Your task to perform on an android device: change notifications settings Image 0: 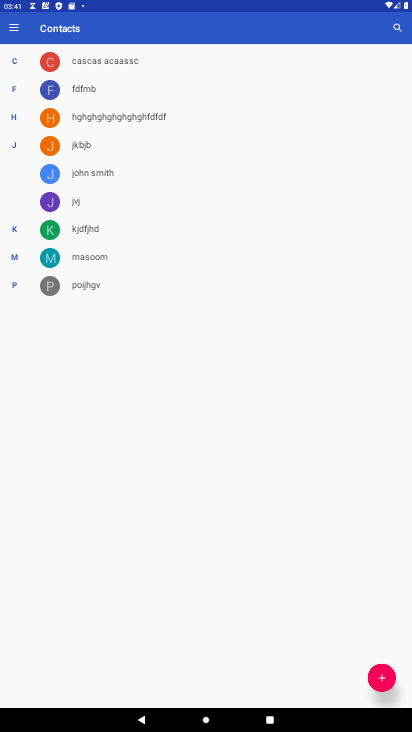
Step 0: press home button
Your task to perform on an android device: change notifications settings Image 1: 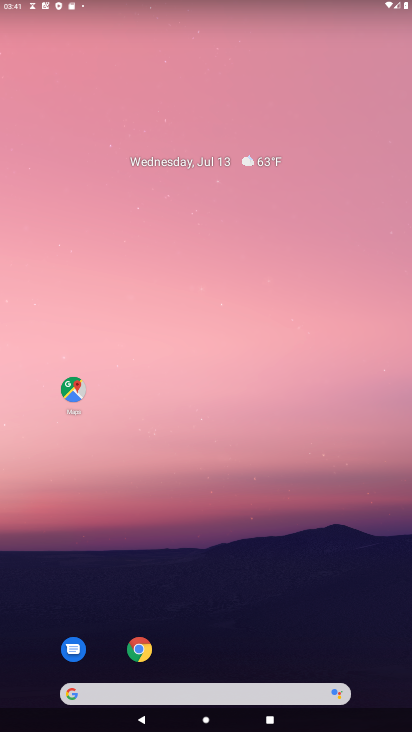
Step 1: drag from (304, 557) to (294, 9)
Your task to perform on an android device: change notifications settings Image 2: 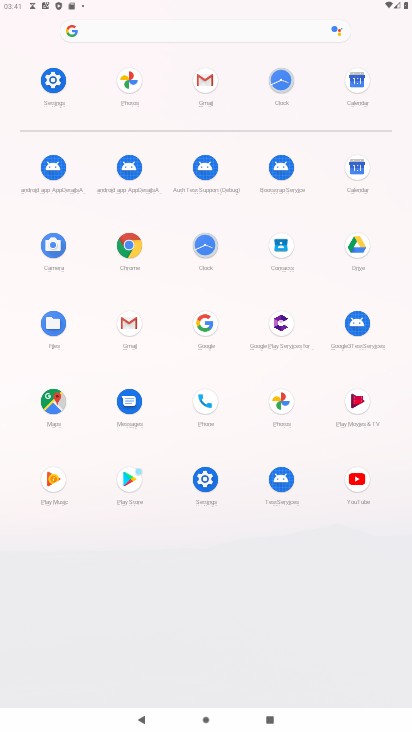
Step 2: click (44, 86)
Your task to perform on an android device: change notifications settings Image 3: 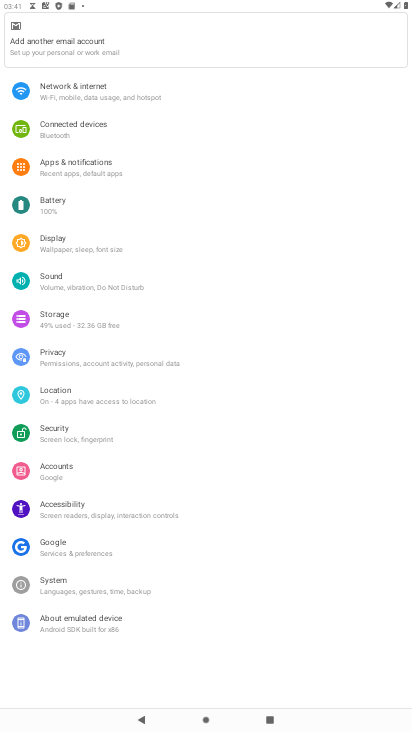
Step 3: click (68, 161)
Your task to perform on an android device: change notifications settings Image 4: 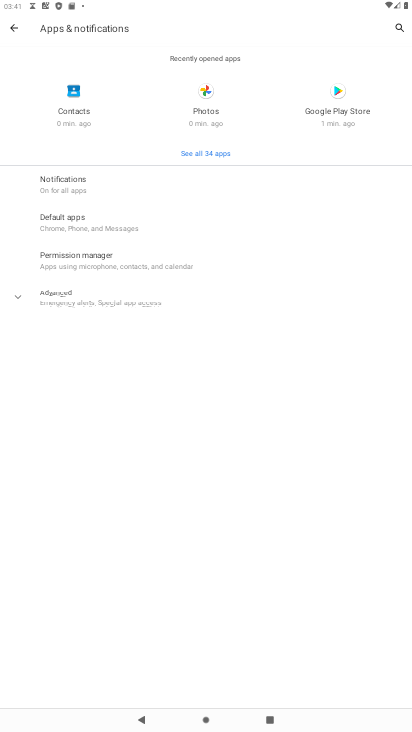
Step 4: click (62, 190)
Your task to perform on an android device: change notifications settings Image 5: 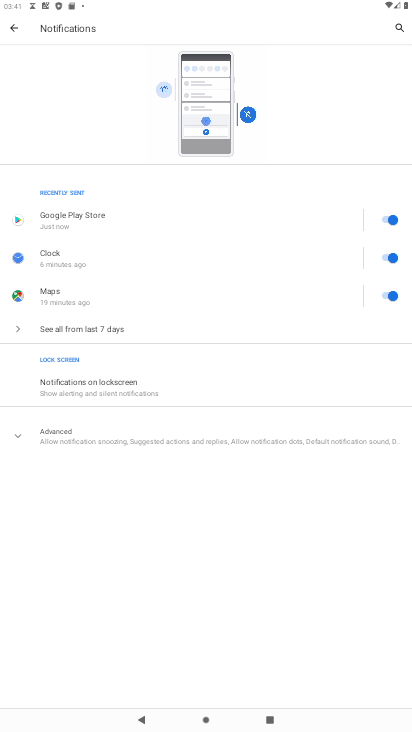
Step 5: click (70, 323)
Your task to perform on an android device: change notifications settings Image 6: 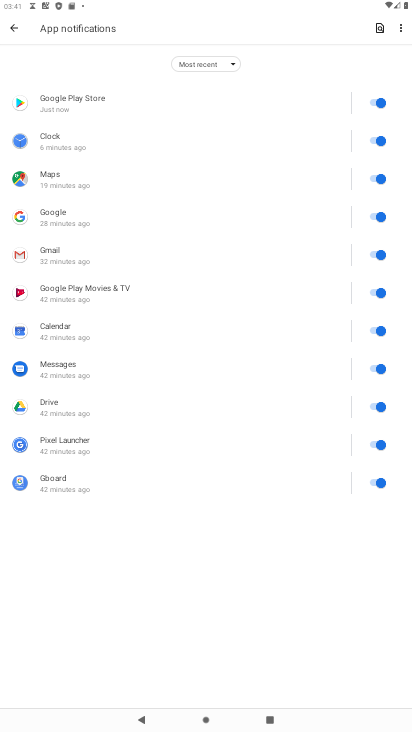
Step 6: click (369, 99)
Your task to perform on an android device: change notifications settings Image 7: 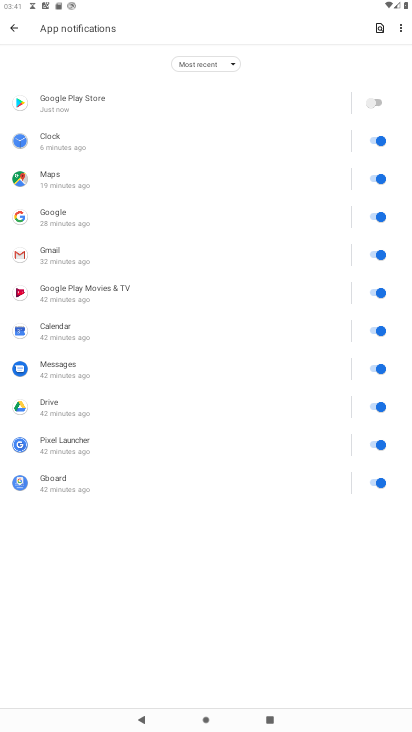
Step 7: click (378, 148)
Your task to perform on an android device: change notifications settings Image 8: 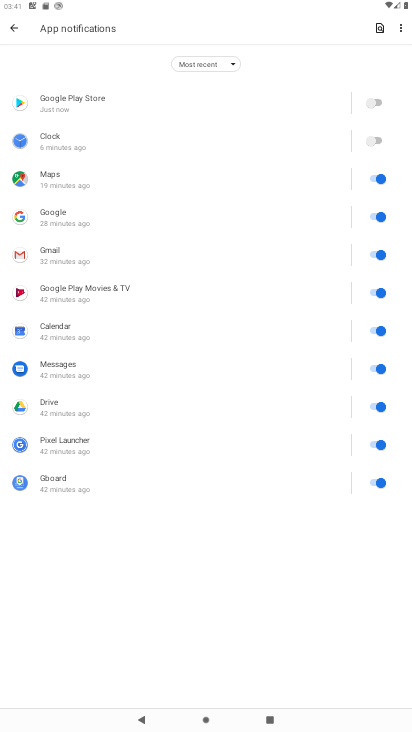
Step 8: click (378, 178)
Your task to perform on an android device: change notifications settings Image 9: 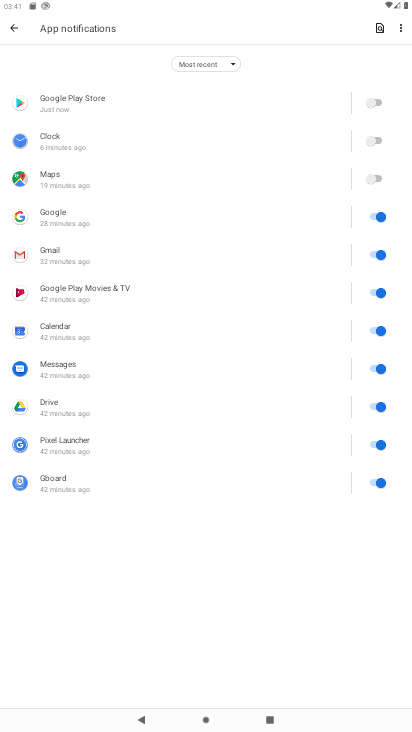
Step 9: click (378, 216)
Your task to perform on an android device: change notifications settings Image 10: 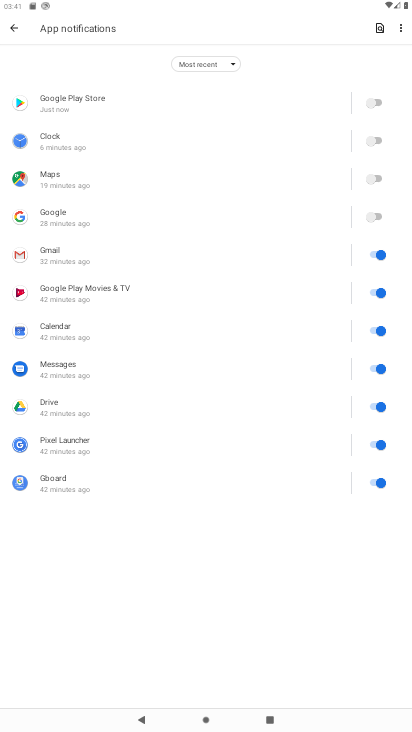
Step 10: click (378, 250)
Your task to perform on an android device: change notifications settings Image 11: 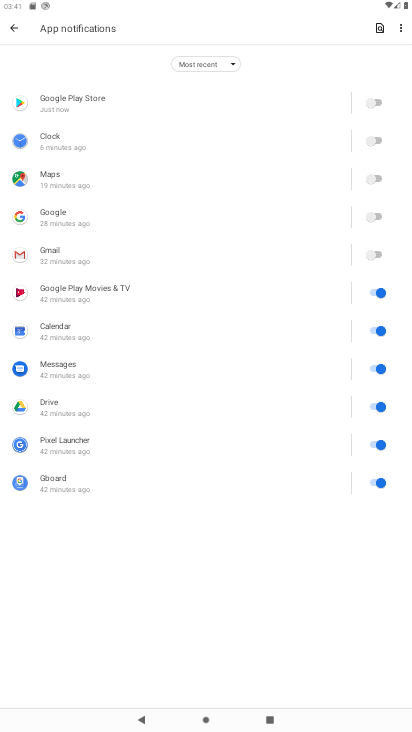
Step 11: click (378, 308)
Your task to perform on an android device: change notifications settings Image 12: 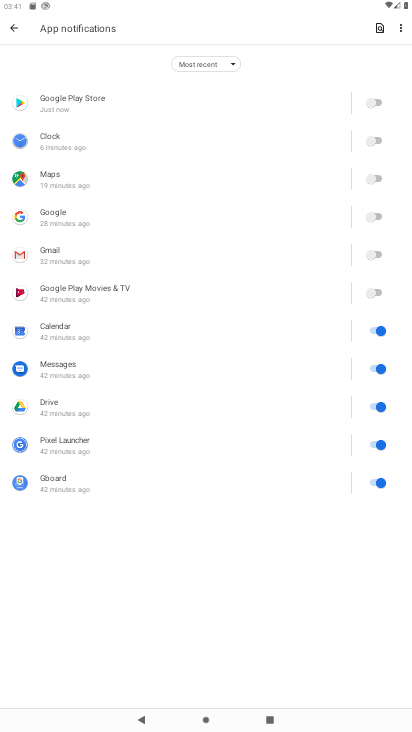
Step 12: click (378, 332)
Your task to perform on an android device: change notifications settings Image 13: 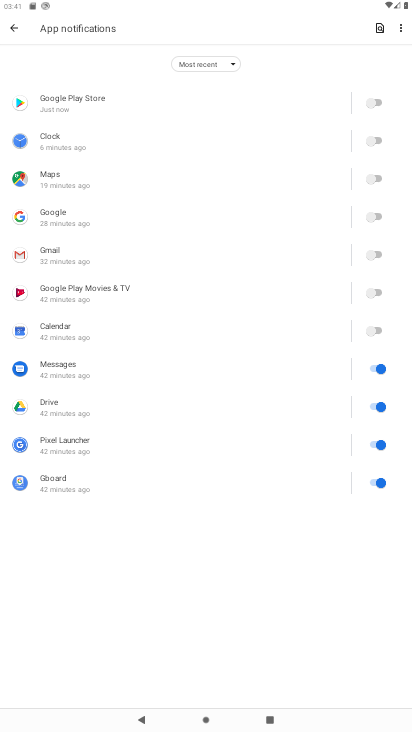
Step 13: click (377, 369)
Your task to perform on an android device: change notifications settings Image 14: 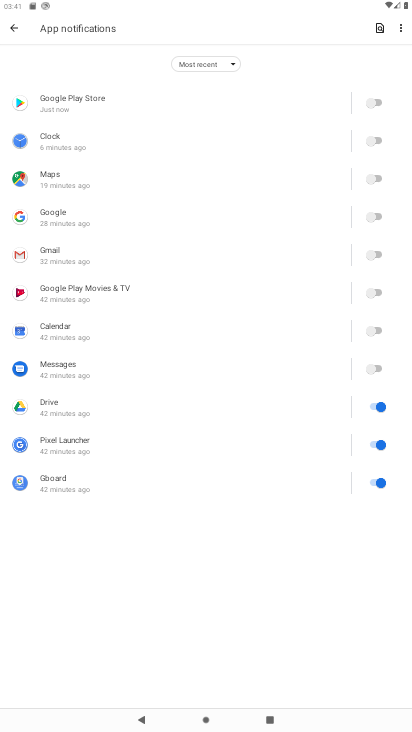
Step 14: click (377, 398)
Your task to perform on an android device: change notifications settings Image 15: 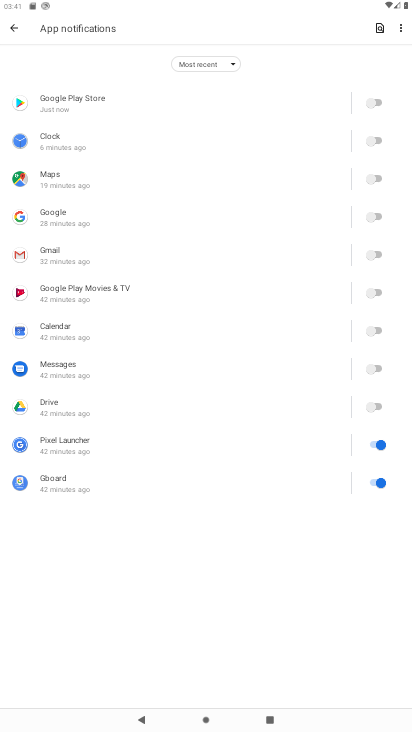
Step 15: click (377, 435)
Your task to perform on an android device: change notifications settings Image 16: 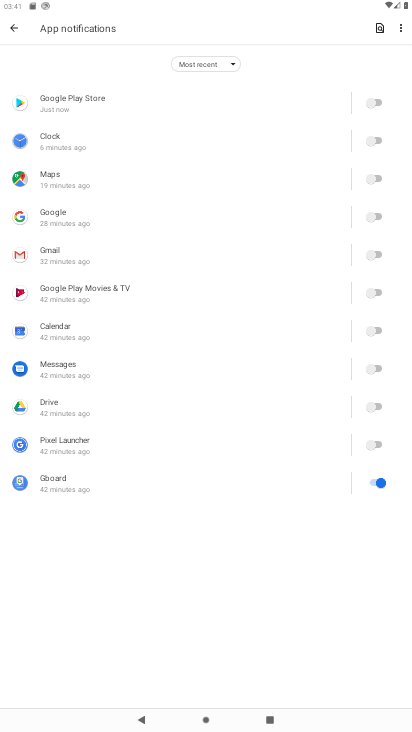
Step 16: click (377, 466)
Your task to perform on an android device: change notifications settings Image 17: 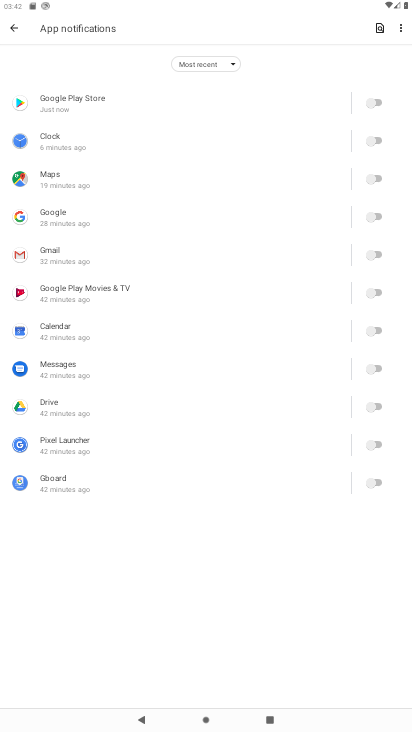
Step 17: click (5, 33)
Your task to perform on an android device: change notifications settings Image 18: 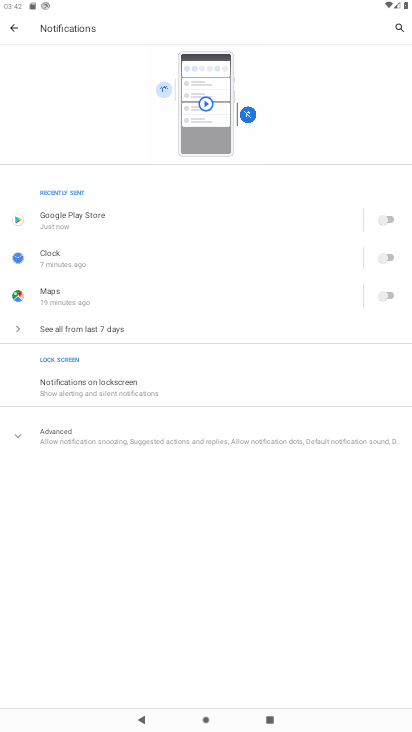
Step 18: click (245, 381)
Your task to perform on an android device: change notifications settings Image 19: 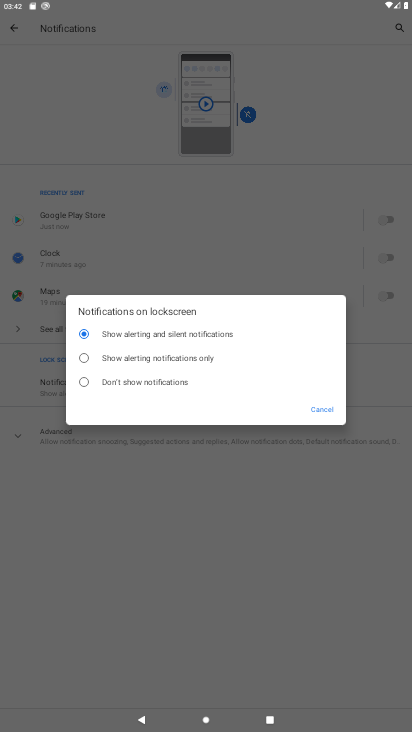
Step 19: click (149, 352)
Your task to perform on an android device: change notifications settings Image 20: 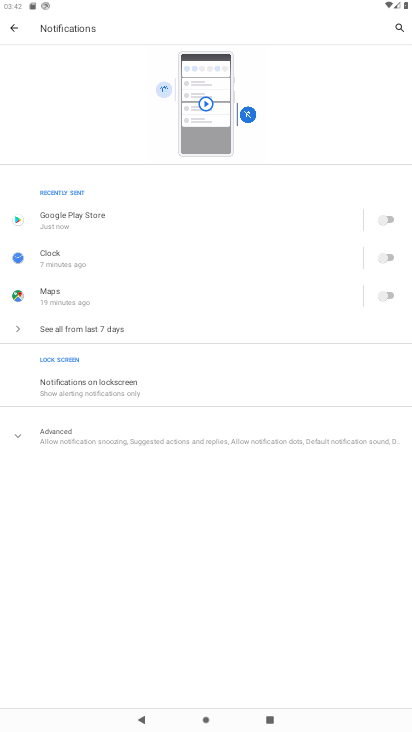
Step 20: click (74, 420)
Your task to perform on an android device: change notifications settings Image 21: 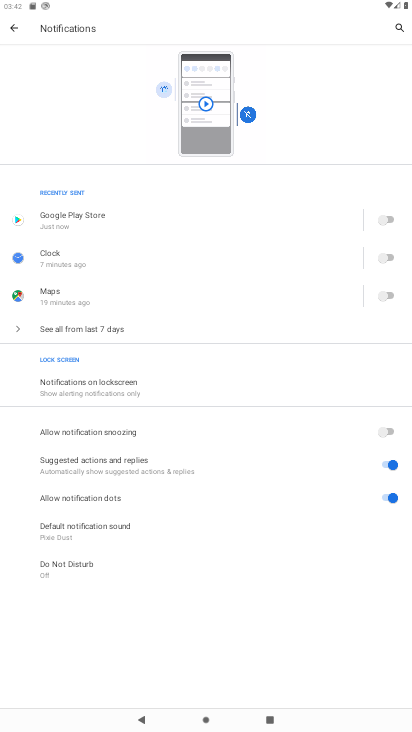
Step 21: click (384, 437)
Your task to perform on an android device: change notifications settings Image 22: 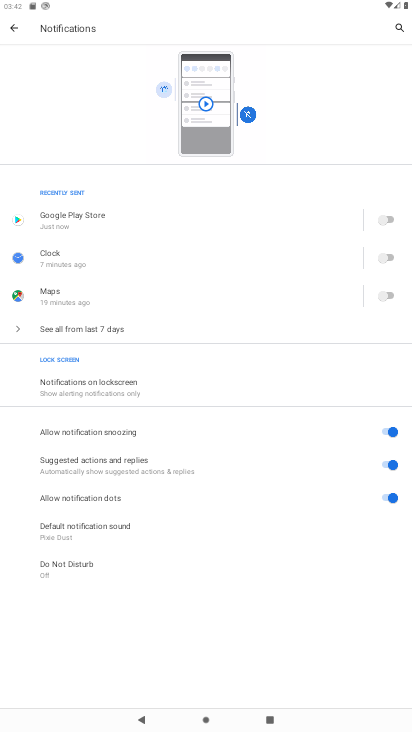
Step 22: click (385, 469)
Your task to perform on an android device: change notifications settings Image 23: 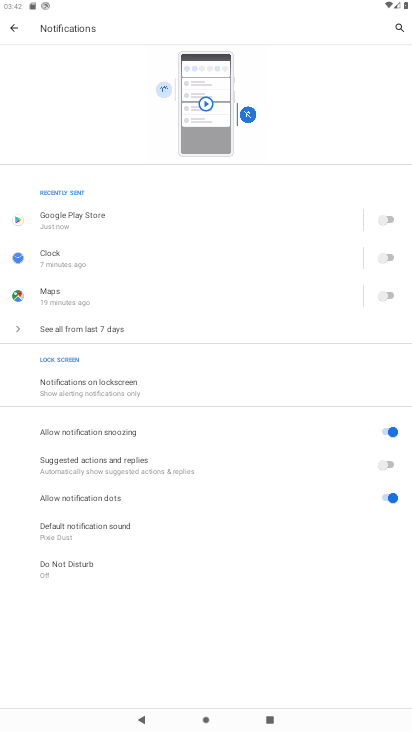
Step 23: click (391, 496)
Your task to perform on an android device: change notifications settings Image 24: 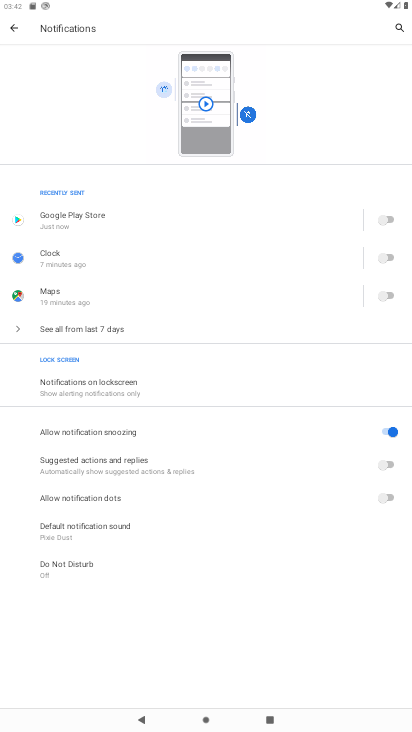
Step 24: task complete